Your task to perform on an android device: Show the shopping cart on newegg.com. Image 0: 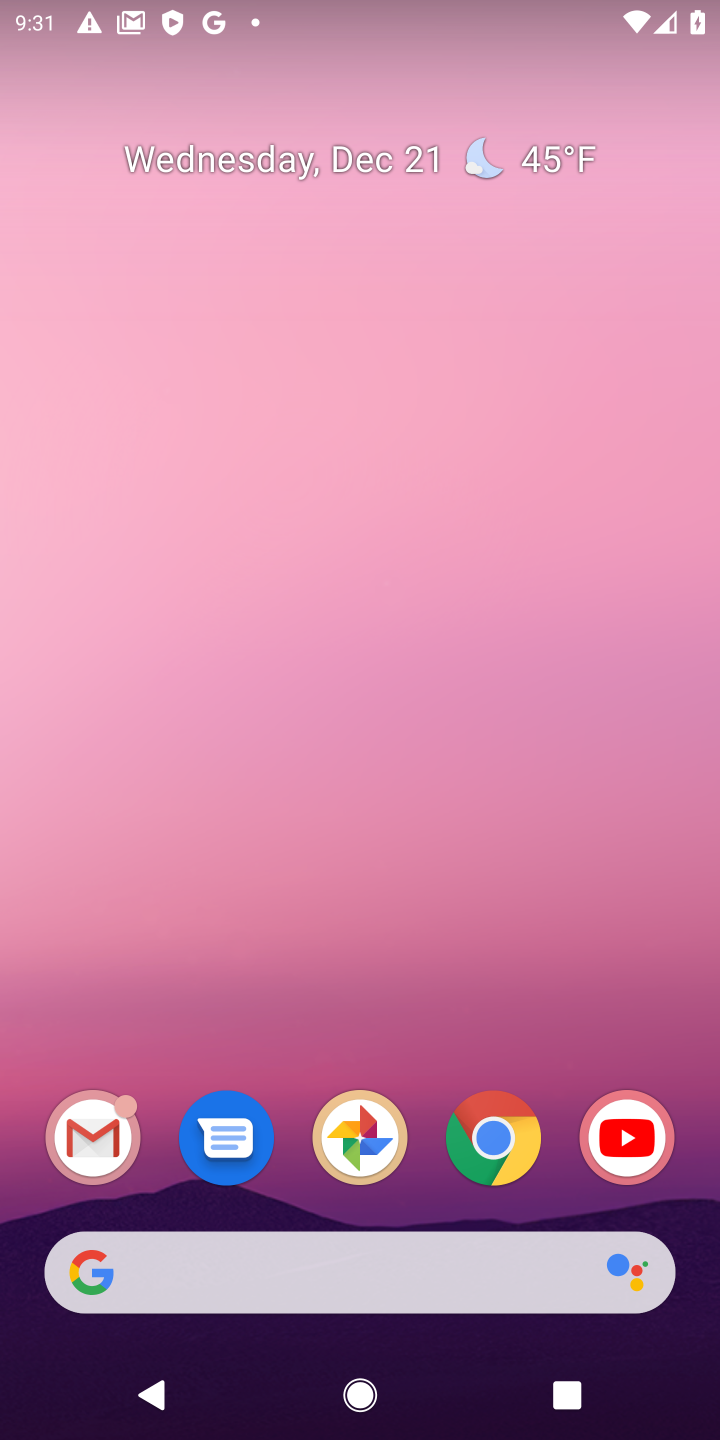
Step 0: click (493, 1152)
Your task to perform on an android device: Show the shopping cart on newegg.com. Image 1: 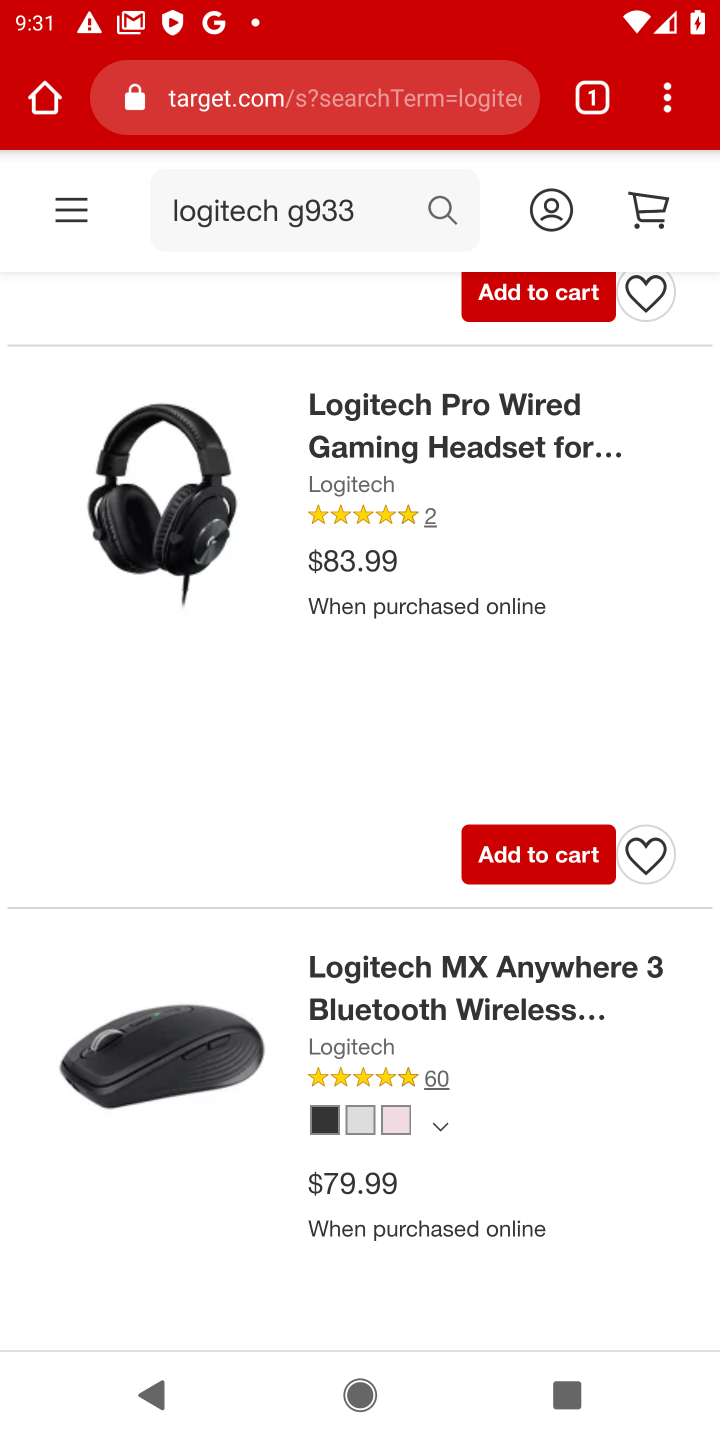
Step 1: click (271, 103)
Your task to perform on an android device: Show the shopping cart on newegg.com. Image 2: 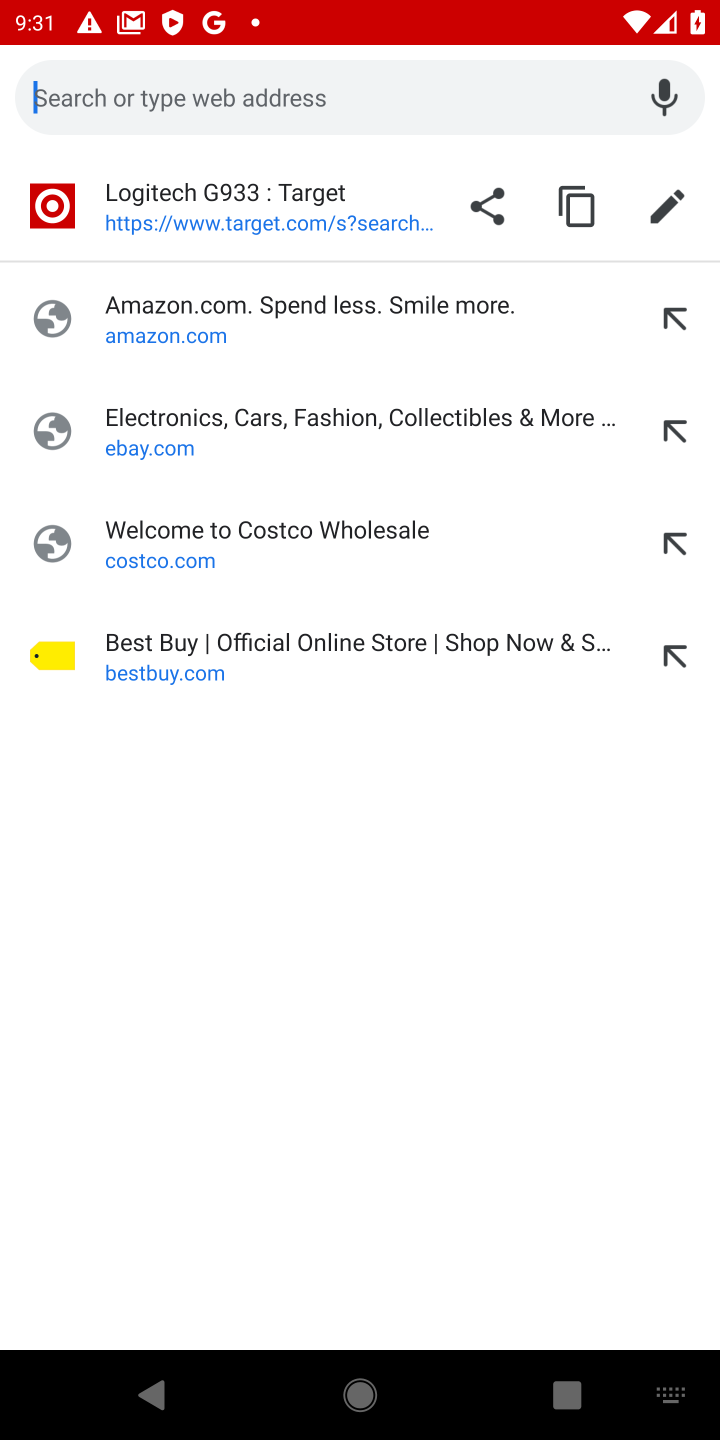
Step 2: type "newegg.com"
Your task to perform on an android device: Show the shopping cart on newegg.com. Image 3: 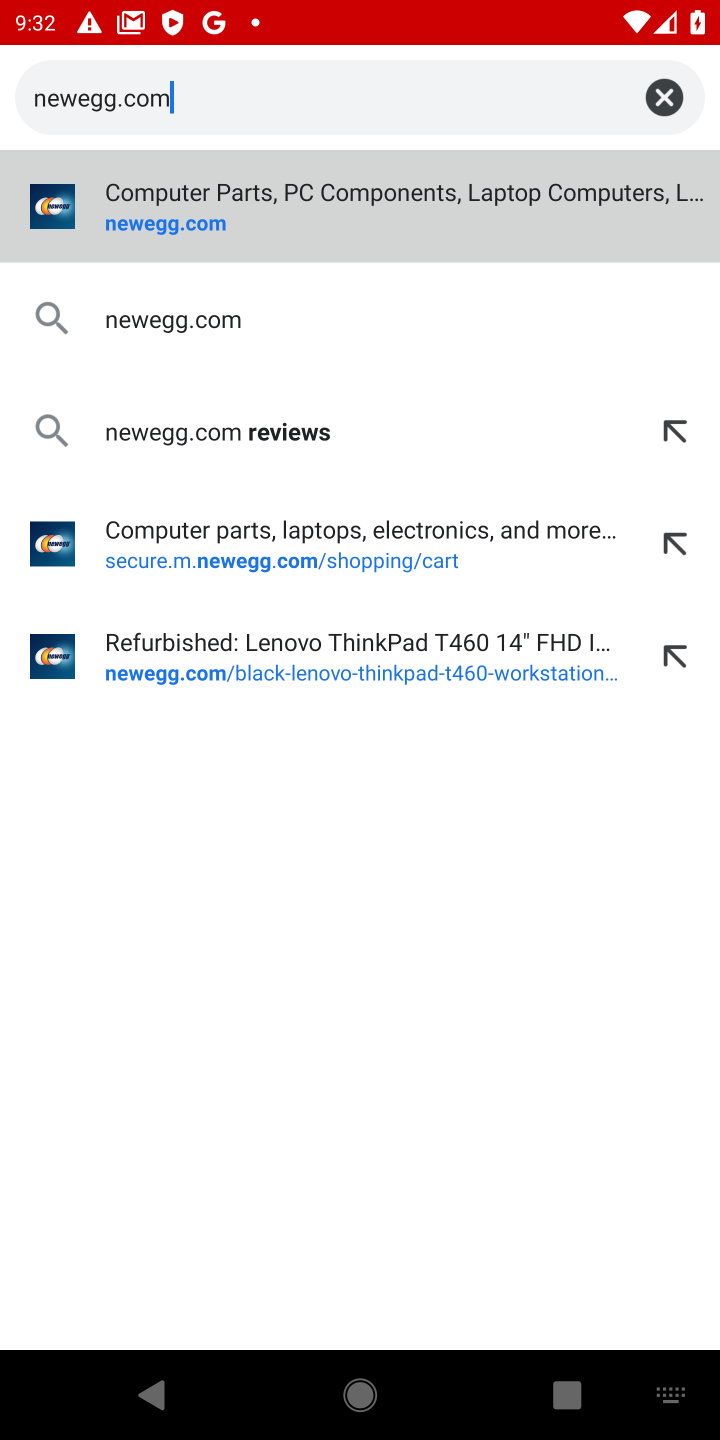
Step 3: click (110, 216)
Your task to perform on an android device: Show the shopping cart on newegg.com. Image 4: 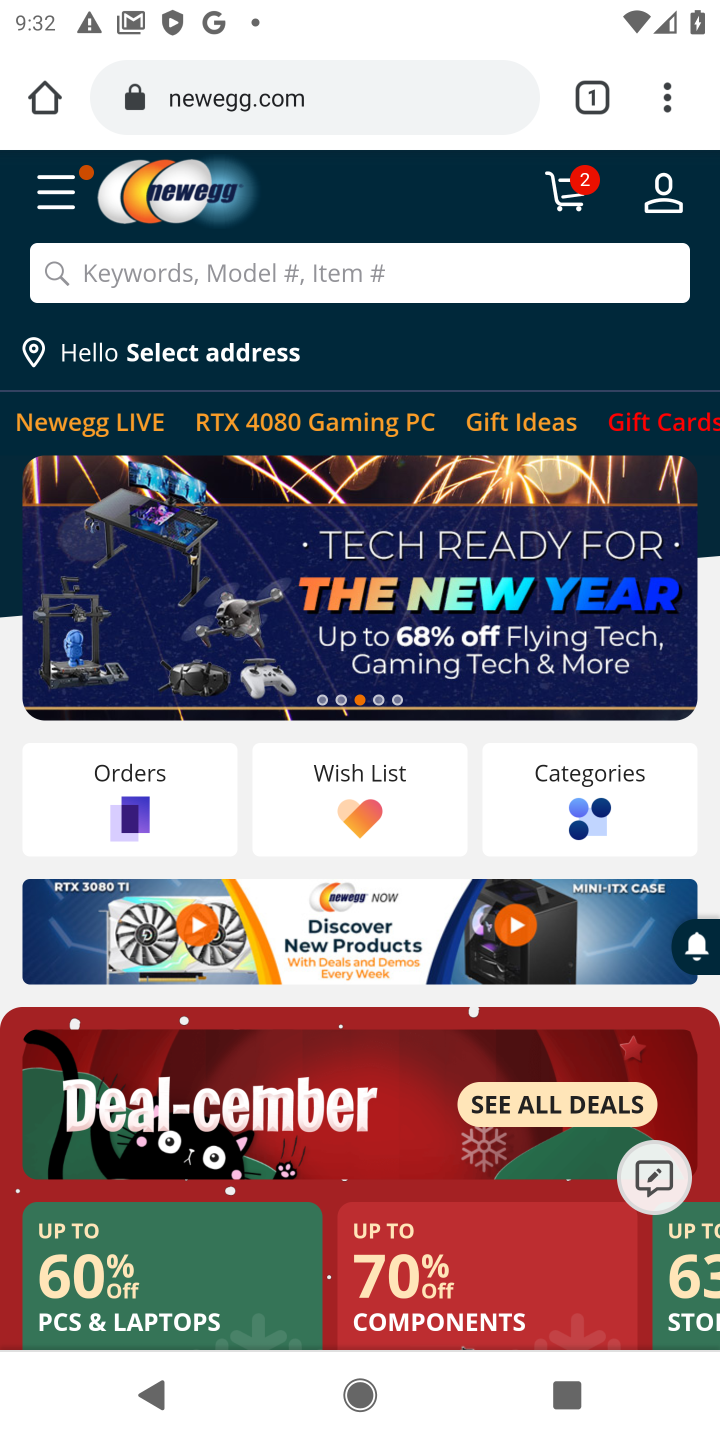
Step 4: click (564, 207)
Your task to perform on an android device: Show the shopping cart on newegg.com. Image 5: 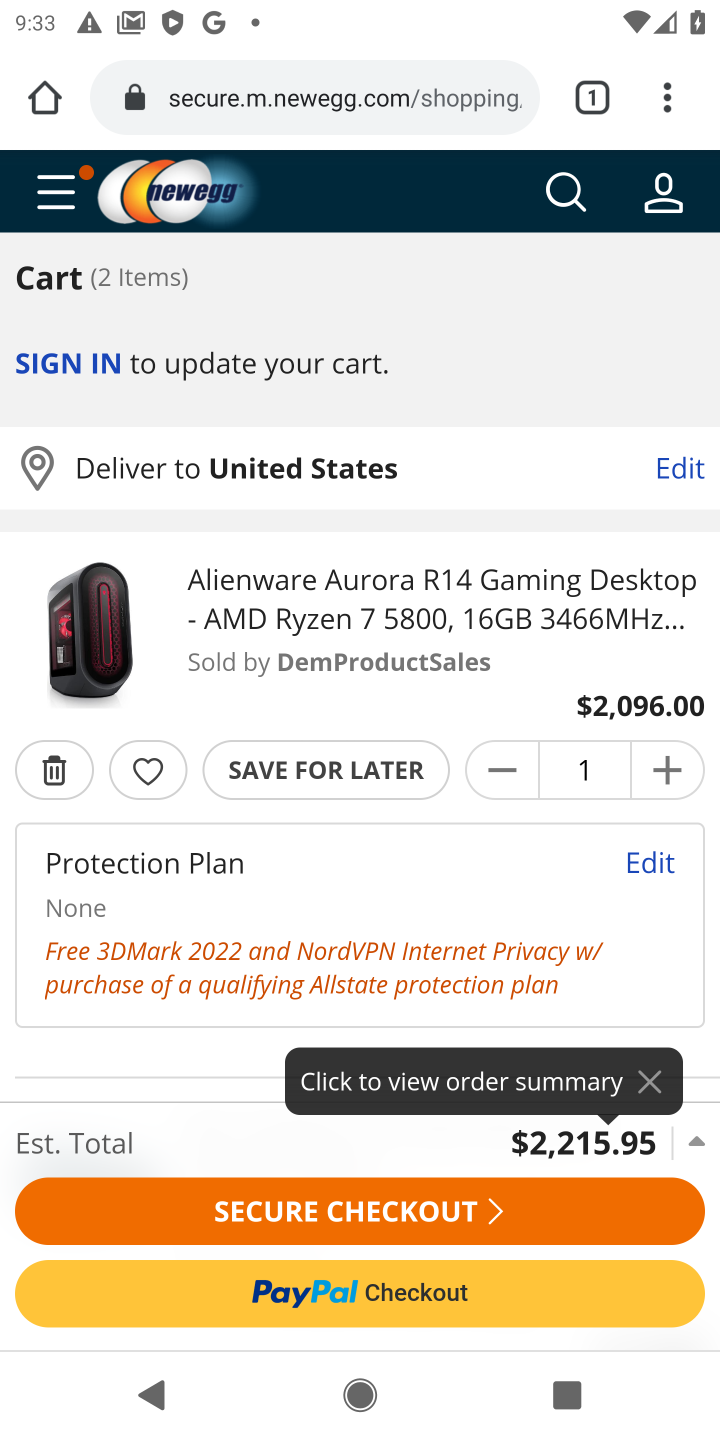
Step 5: task complete